Your task to perform on an android device: change timer sound Image 0: 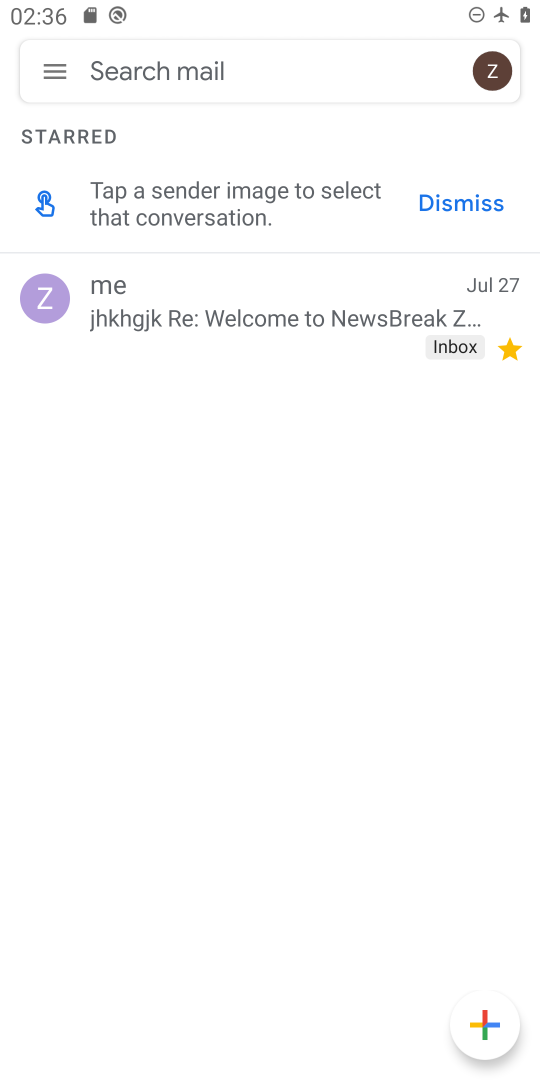
Step 0: press home button
Your task to perform on an android device: change timer sound Image 1: 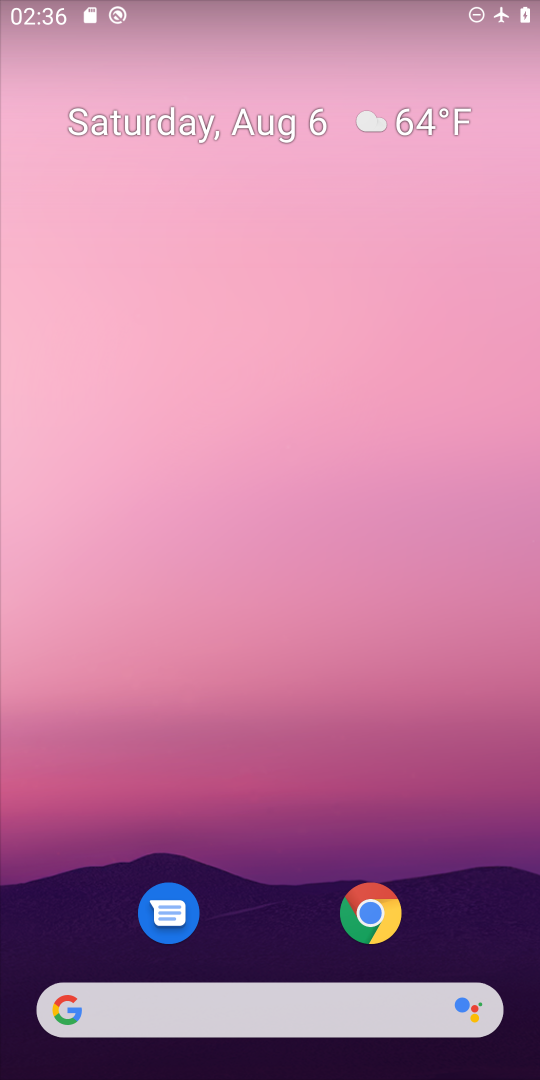
Step 1: drag from (303, 909) to (303, 252)
Your task to perform on an android device: change timer sound Image 2: 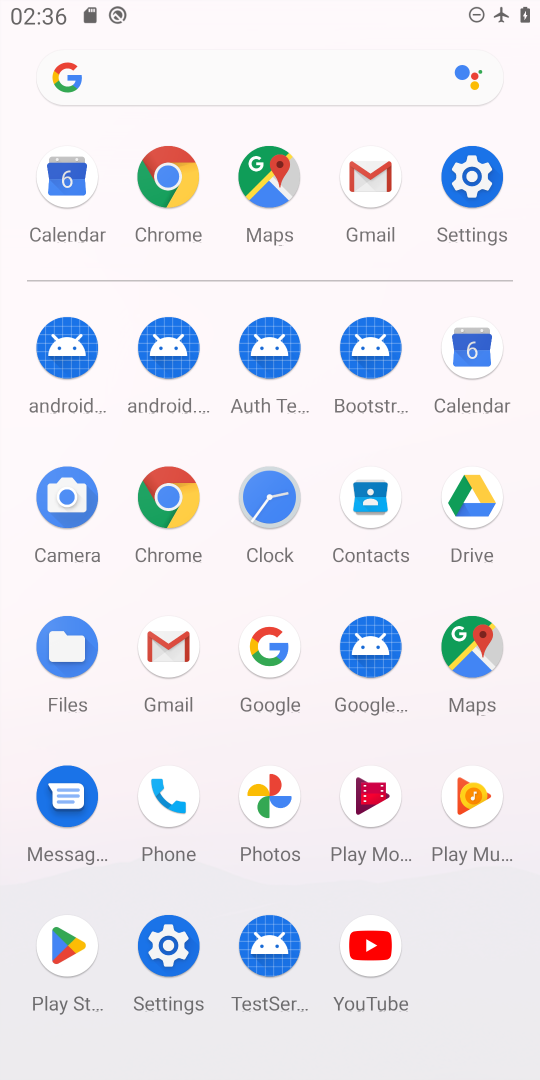
Step 2: click (275, 496)
Your task to perform on an android device: change timer sound Image 3: 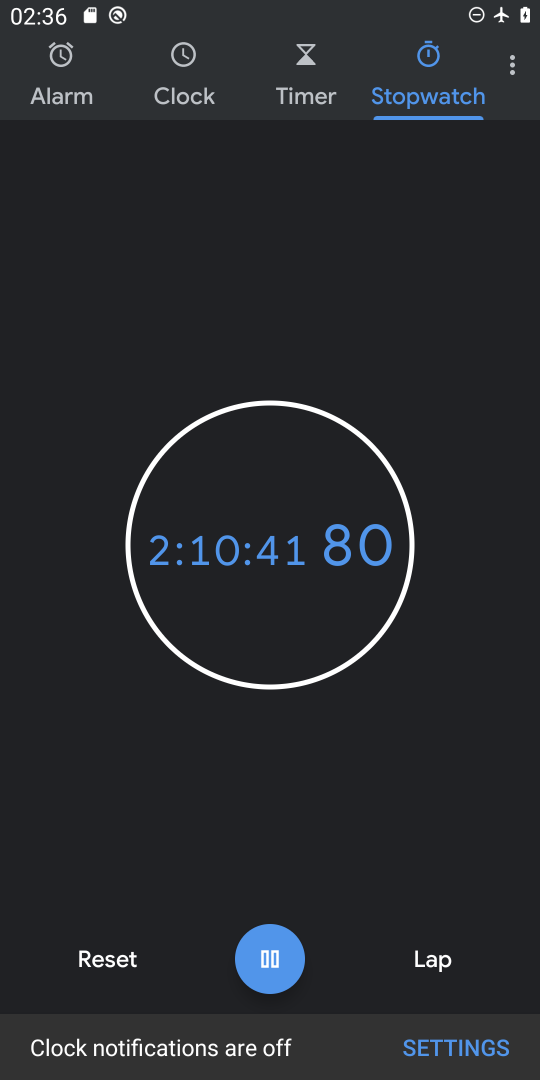
Step 3: click (510, 75)
Your task to perform on an android device: change timer sound Image 4: 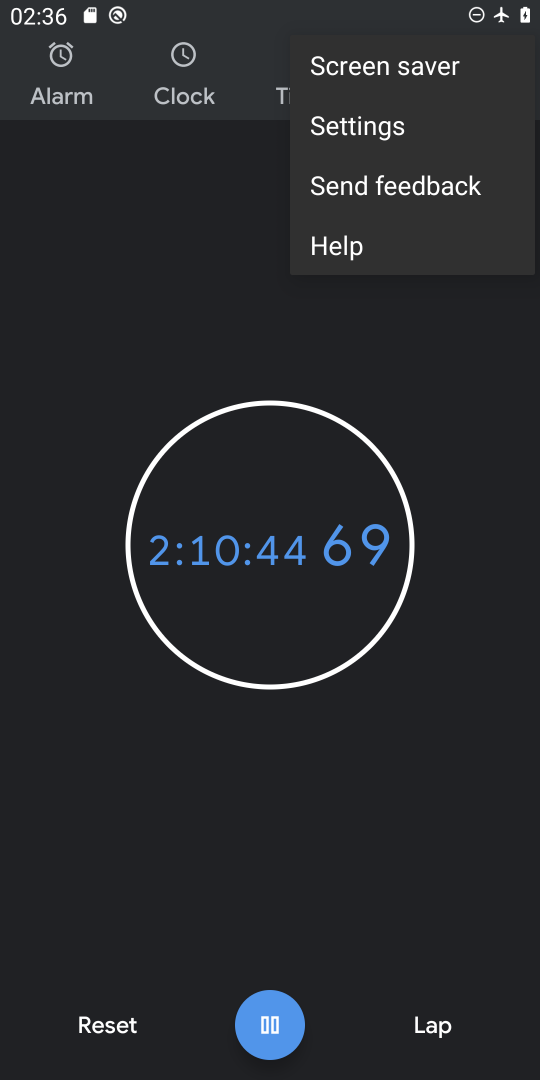
Step 4: click (392, 137)
Your task to perform on an android device: change timer sound Image 5: 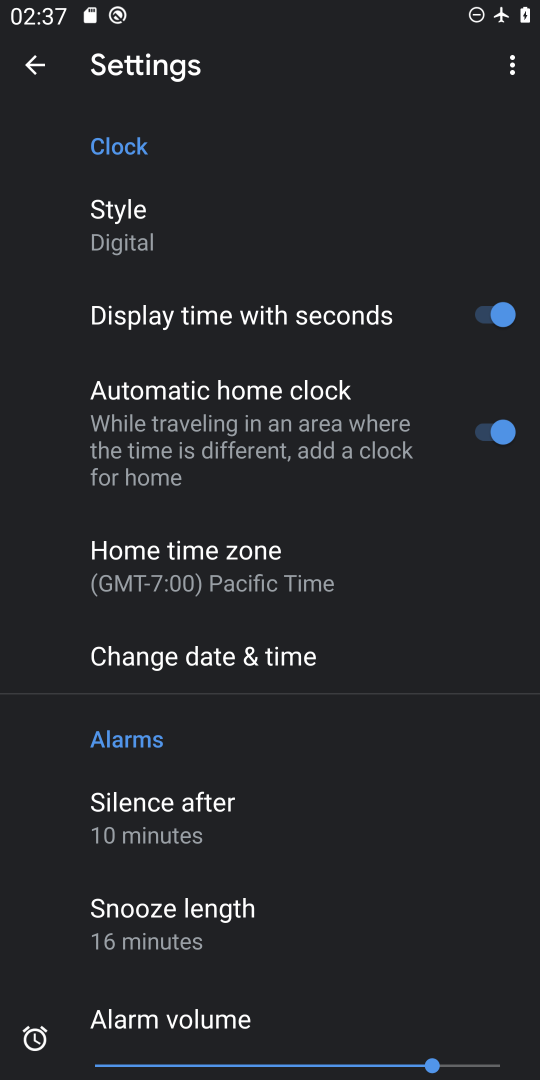
Step 5: drag from (382, 792) to (364, 579)
Your task to perform on an android device: change timer sound Image 6: 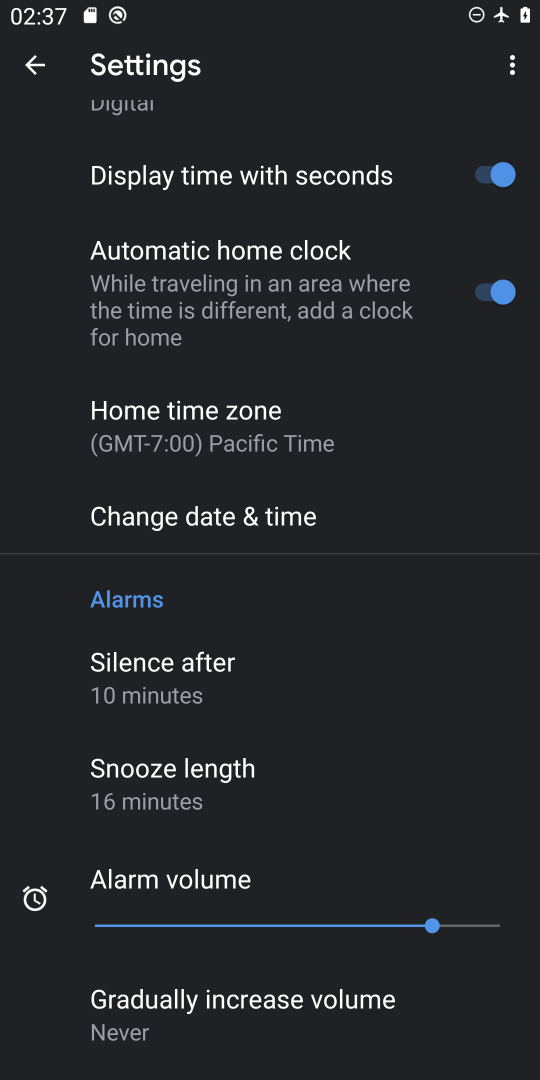
Step 6: drag from (384, 789) to (376, 619)
Your task to perform on an android device: change timer sound Image 7: 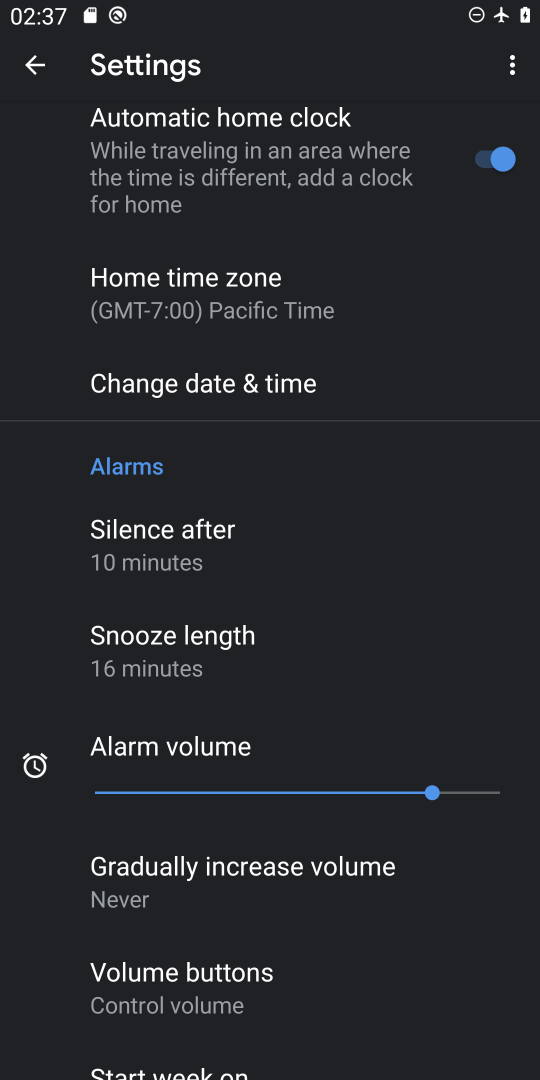
Step 7: drag from (342, 915) to (342, 705)
Your task to perform on an android device: change timer sound Image 8: 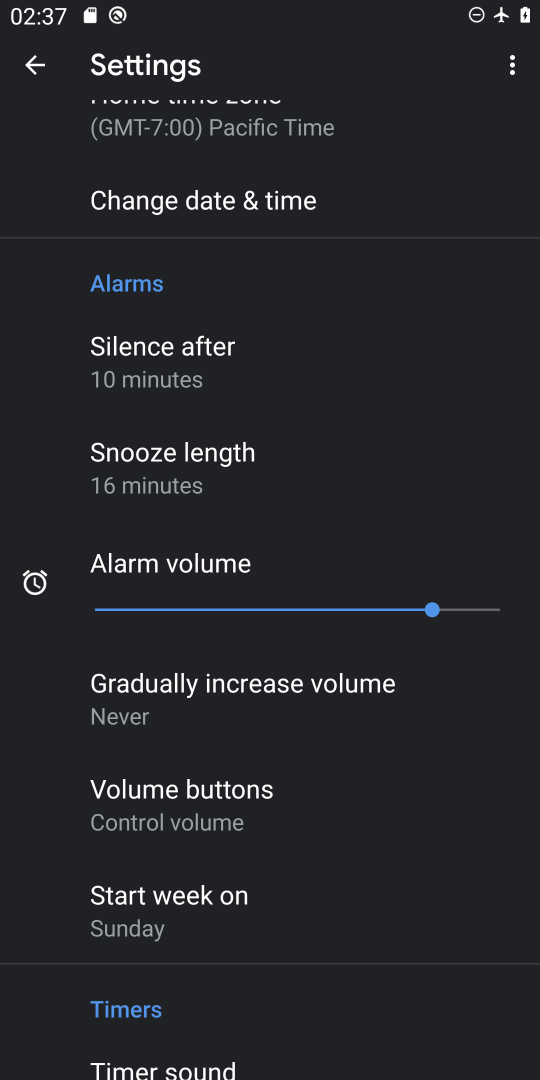
Step 8: drag from (353, 915) to (336, 739)
Your task to perform on an android device: change timer sound Image 9: 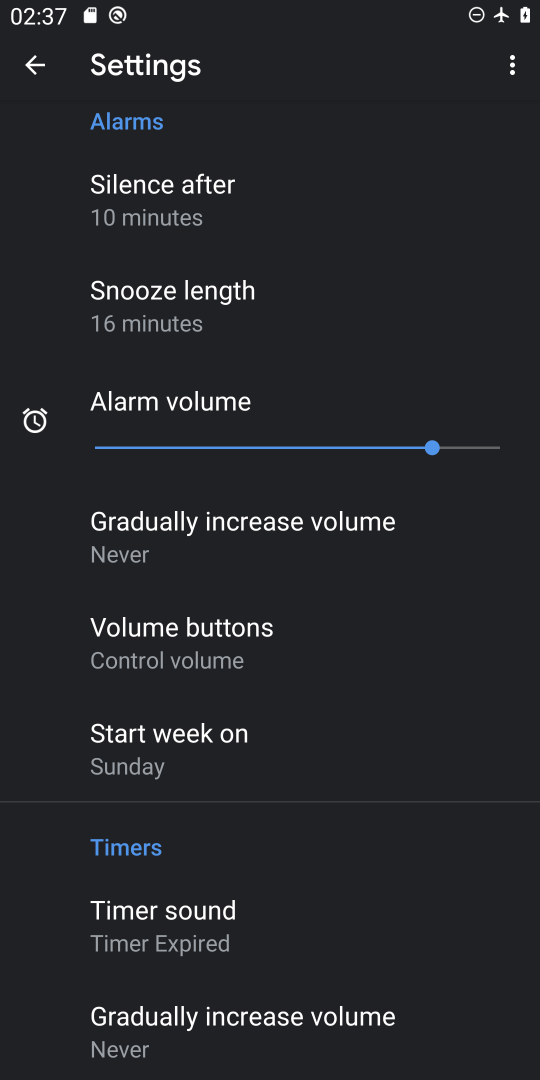
Step 9: click (299, 923)
Your task to perform on an android device: change timer sound Image 10: 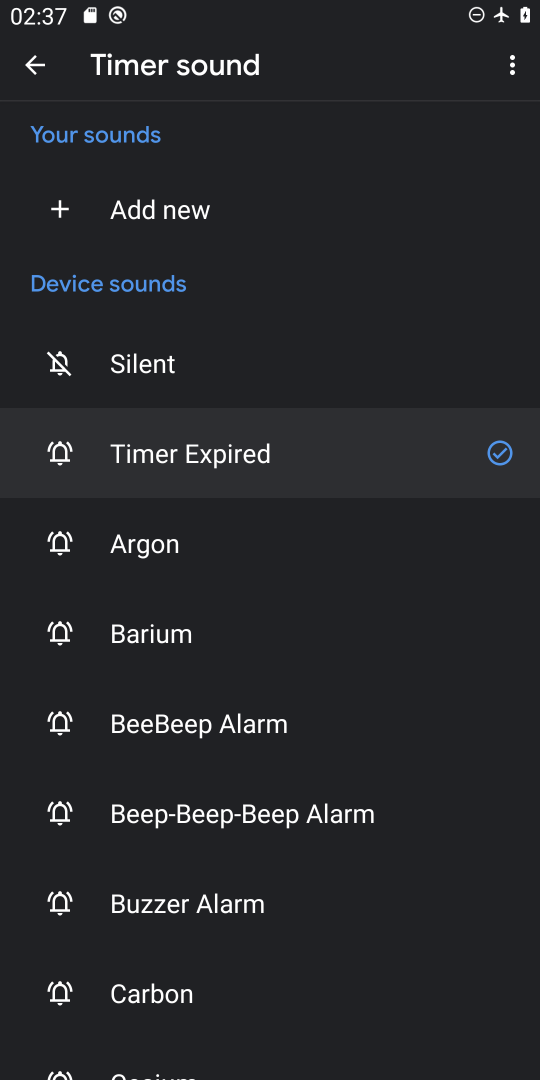
Step 10: click (288, 827)
Your task to perform on an android device: change timer sound Image 11: 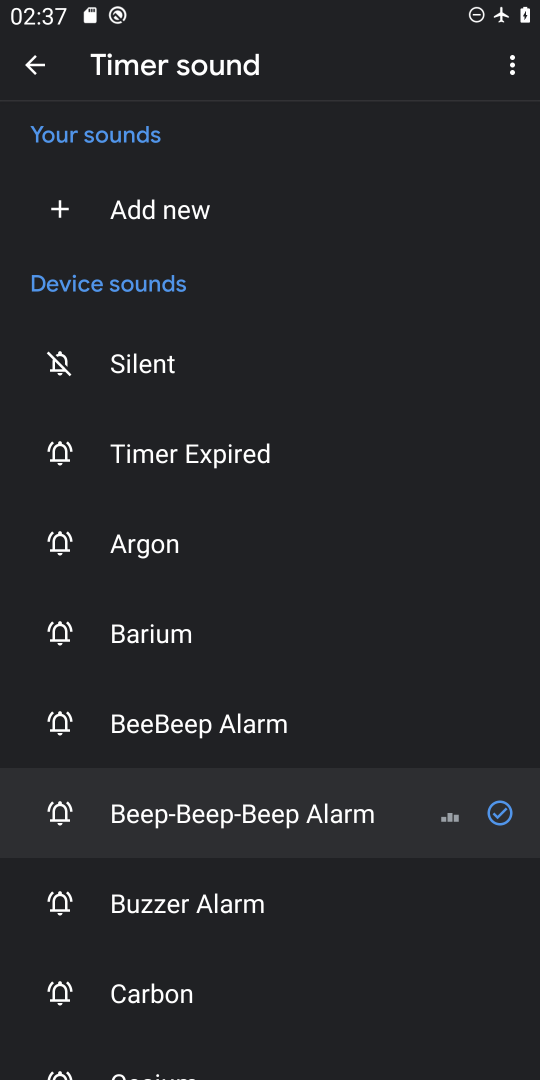
Step 11: task complete